Your task to perform on an android device: What is the news today? Image 0: 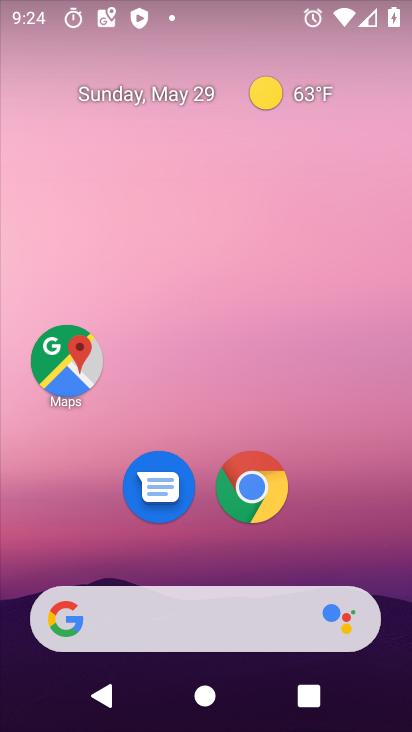
Step 0: drag from (197, 565) to (205, 58)
Your task to perform on an android device: What is the news today? Image 1: 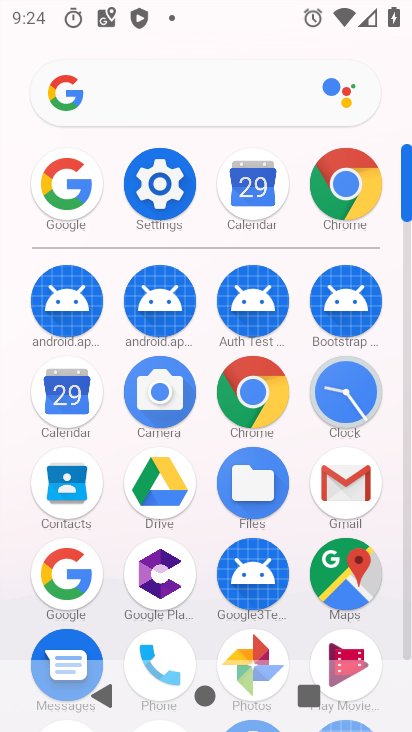
Step 1: click (85, 590)
Your task to perform on an android device: What is the news today? Image 2: 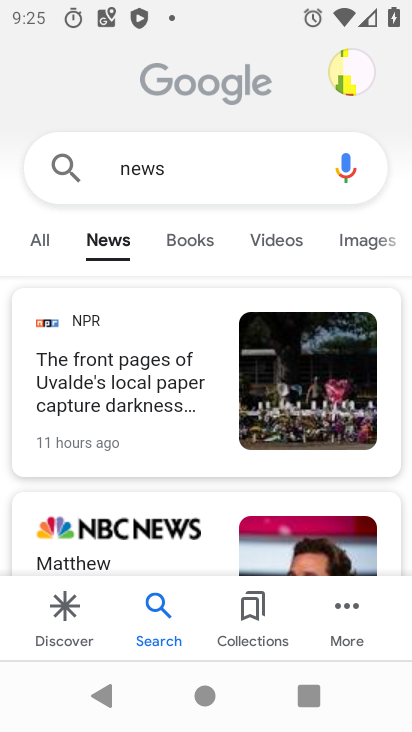
Step 2: task complete